Your task to perform on an android device: toggle data saver in the chrome app Image 0: 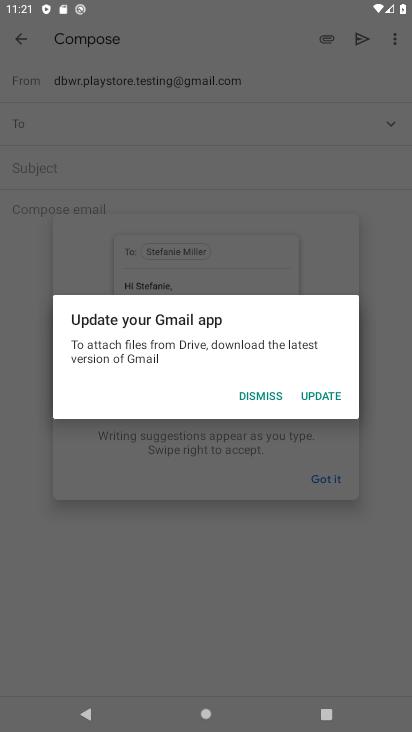
Step 0: press home button
Your task to perform on an android device: toggle data saver in the chrome app Image 1: 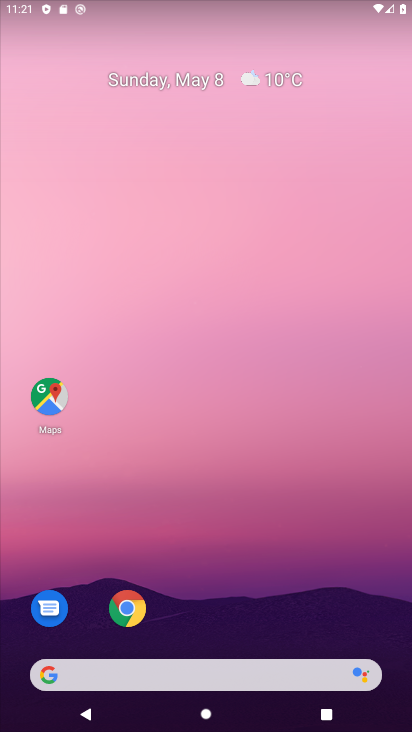
Step 1: click (148, 608)
Your task to perform on an android device: toggle data saver in the chrome app Image 2: 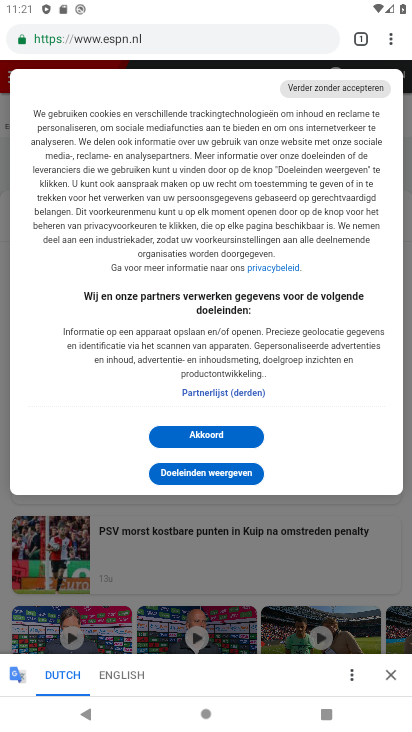
Step 2: click (387, 36)
Your task to perform on an android device: toggle data saver in the chrome app Image 3: 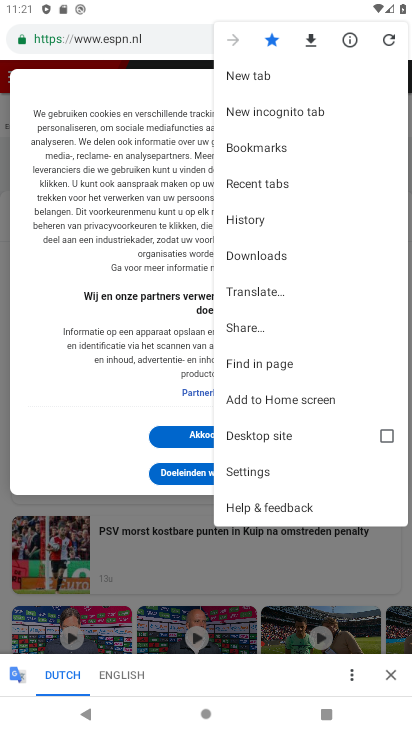
Step 3: click (260, 474)
Your task to perform on an android device: toggle data saver in the chrome app Image 4: 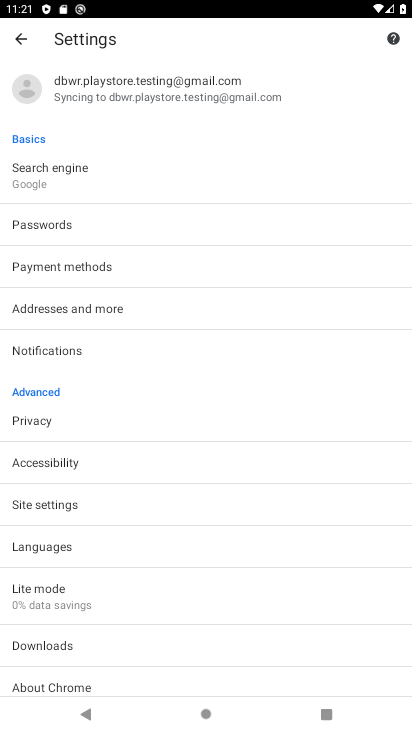
Step 4: click (97, 594)
Your task to perform on an android device: toggle data saver in the chrome app Image 5: 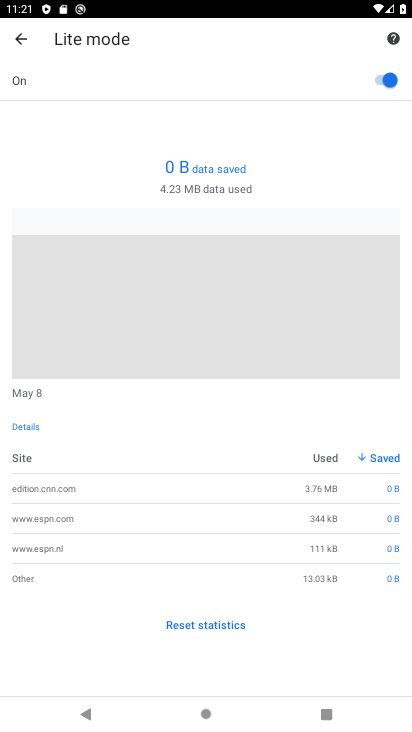
Step 5: click (389, 80)
Your task to perform on an android device: toggle data saver in the chrome app Image 6: 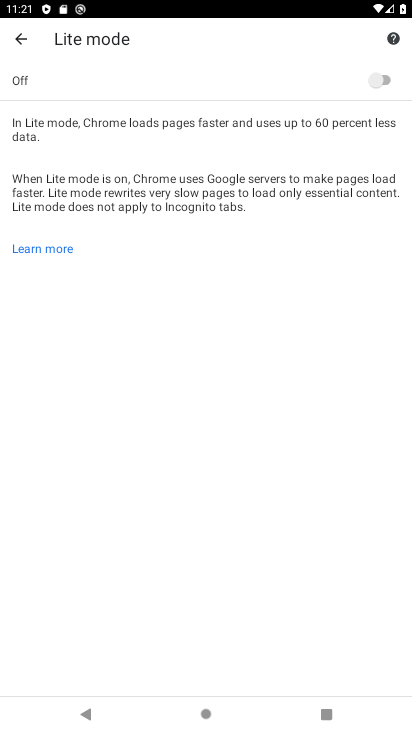
Step 6: task complete